Your task to perform on an android device: turn off picture-in-picture Image 0: 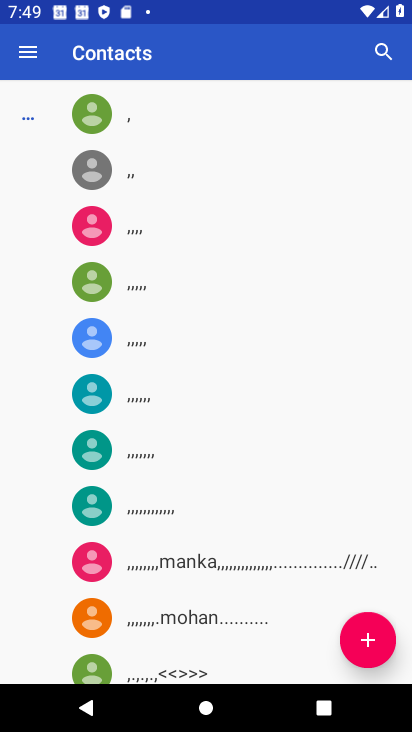
Step 0: press home button
Your task to perform on an android device: turn off picture-in-picture Image 1: 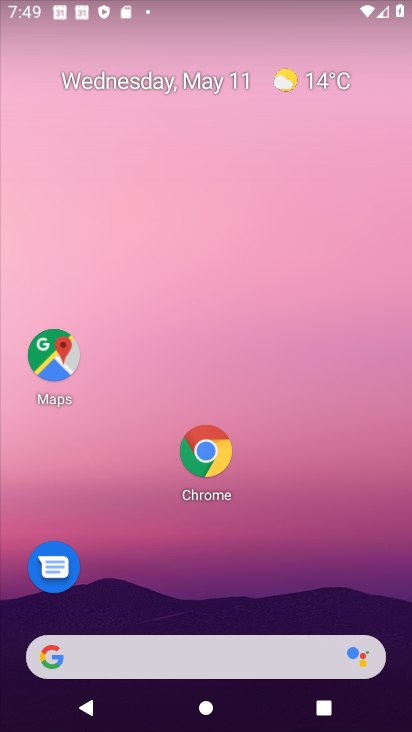
Step 1: click (211, 439)
Your task to perform on an android device: turn off picture-in-picture Image 2: 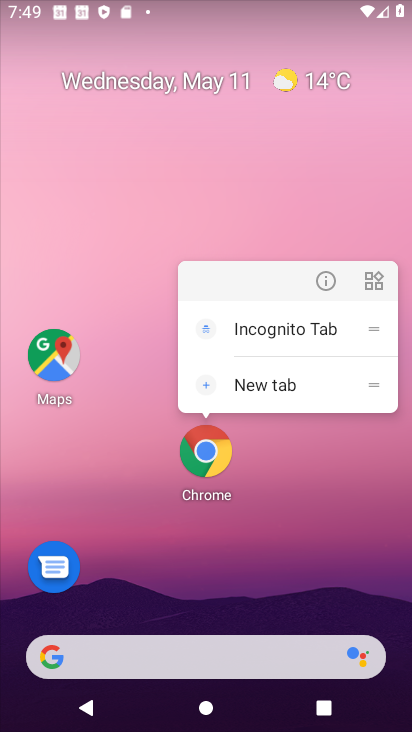
Step 2: click (326, 274)
Your task to perform on an android device: turn off picture-in-picture Image 3: 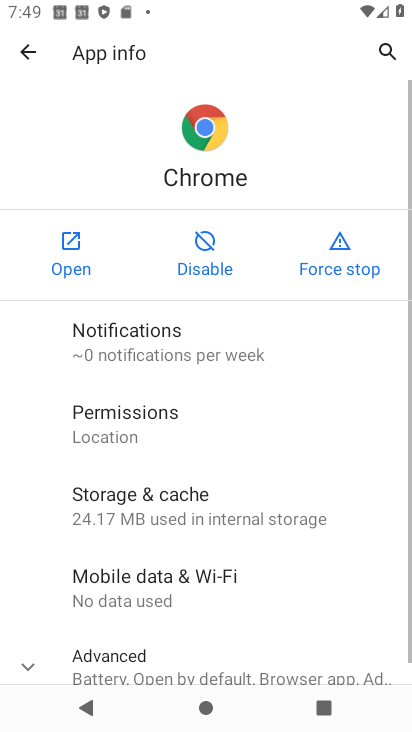
Step 3: drag from (189, 637) to (352, 181)
Your task to perform on an android device: turn off picture-in-picture Image 4: 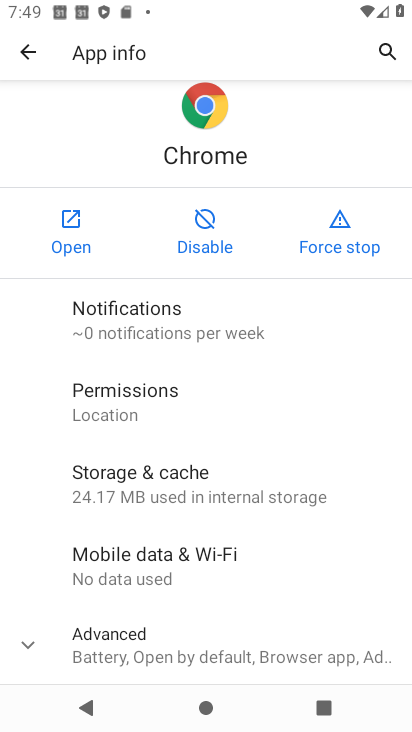
Step 4: click (137, 655)
Your task to perform on an android device: turn off picture-in-picture Image 5: 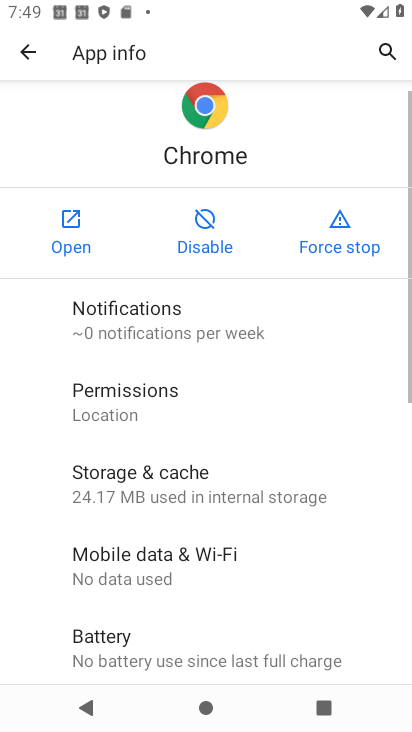
Step 5: drag from (190, 614) to (393, 92)
Your task to perform on an android device: turn off picture-in-picture Image 6: 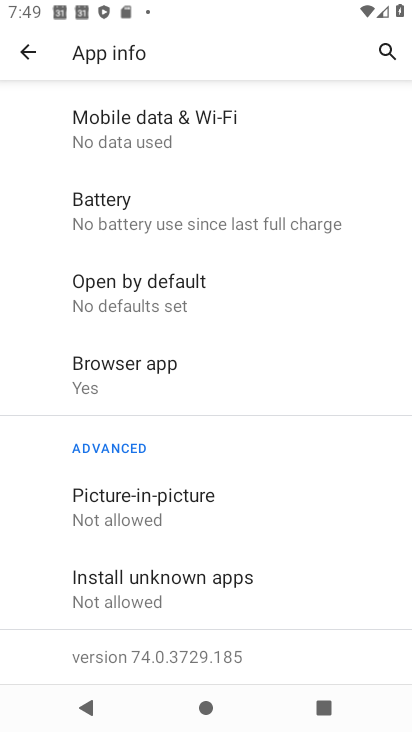
Step 6: click (184, 508)
Your task to perform on an android device: turn off picture-in-picture Image 7: 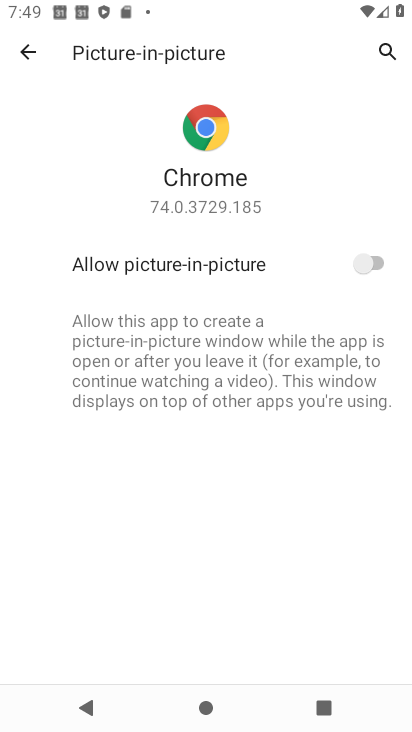
Step 7: task complete